Your task to perform on an android device: Is it going to rain tomorrow? Image 0: 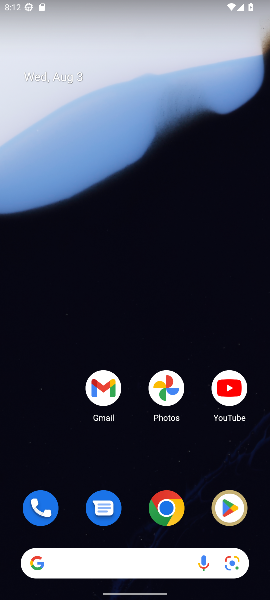
Step 0: drag from (128, 544) to (159, 18)
Your task to perform on an android device: Is it going to rain tomorrow? Image 1: 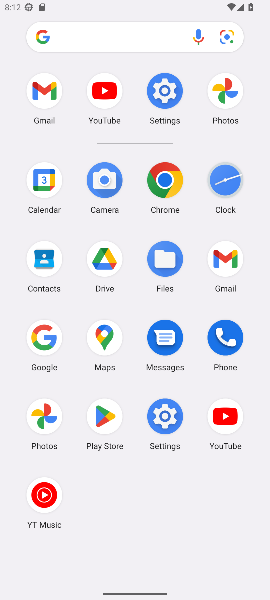
Step 1: click (44, 174)
Your task to perform on an android device: Is it going to rain tomorrow? Image 2: 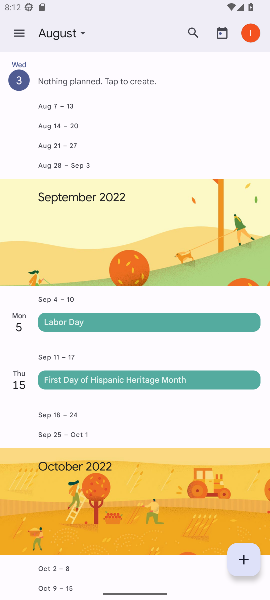
Step 2: click (219, 30)
Your task to perform on an android device: Is it going to rain tomorrow? Image 3: 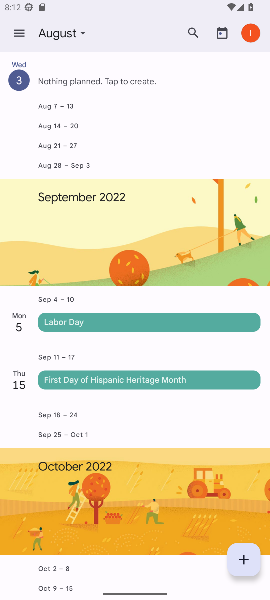
Step 3: click (18, 24)
Your task to perform on an android device: Is it going to rain tomorrow? Image 4: 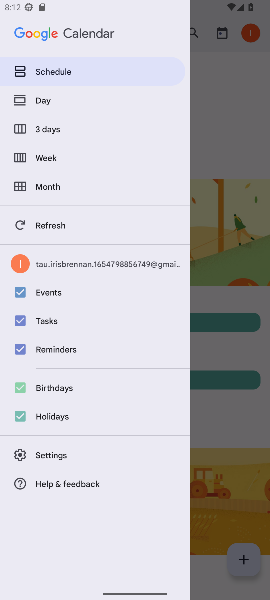
Step 4: click (49, 150)
Your task to perform on an android device: Is it going to rain tomorrow? Image 5: 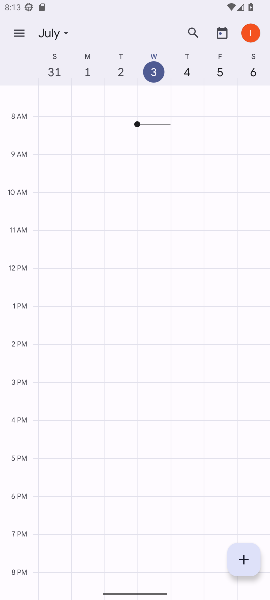
Step 5: click (186, 70)
Your task to perform on an android device: Is it going to rain tomorrow? Image 6: 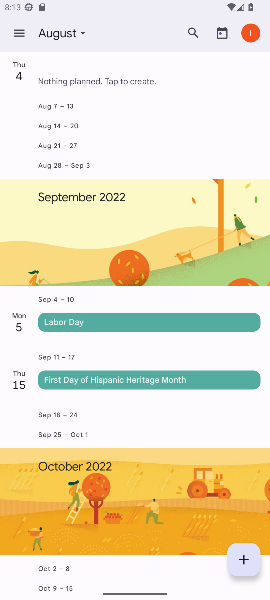
Step 6: task complete